Your task to perform on an android device: turn pop-ups on in chrome Image 0: 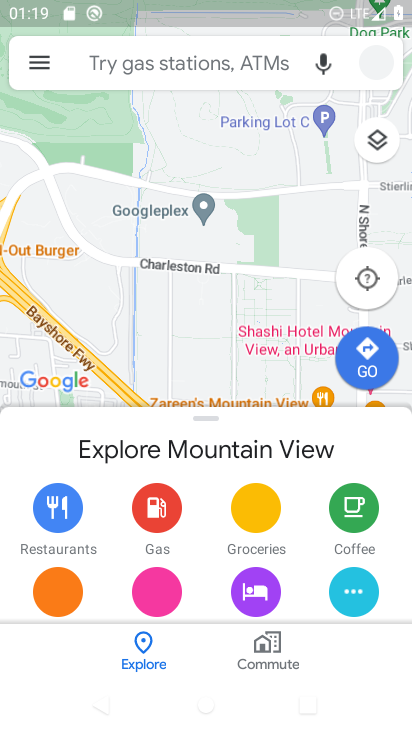
Step 0: drag from (211, 565) to (279, 123)
Your task to perform on an android device: turn pop-ups on in chrome Image 1: 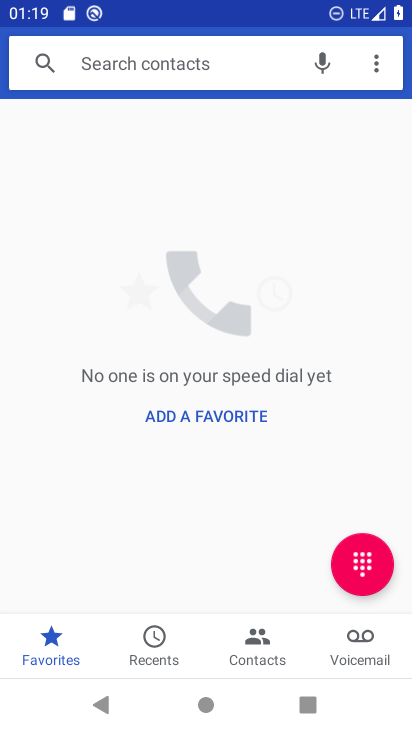
Step 1: press home button
Your task to perform on an android device: turn pop-ups on in chrome Image 2: 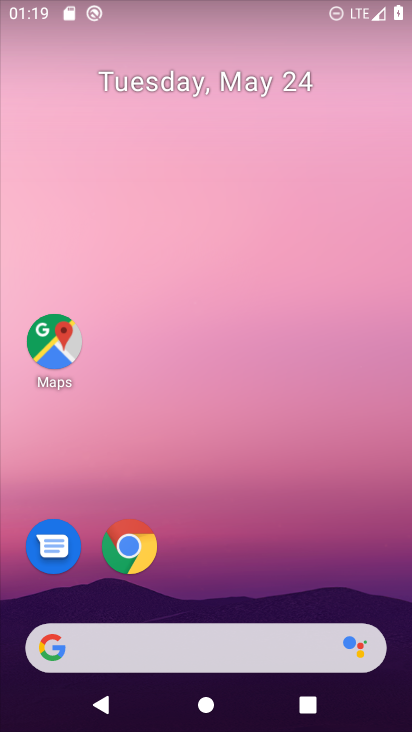
Step 2: drag from (243, 641) to (273, 85)
Your task to perform on an android device: turn pop-ups on in chrome Image 3: 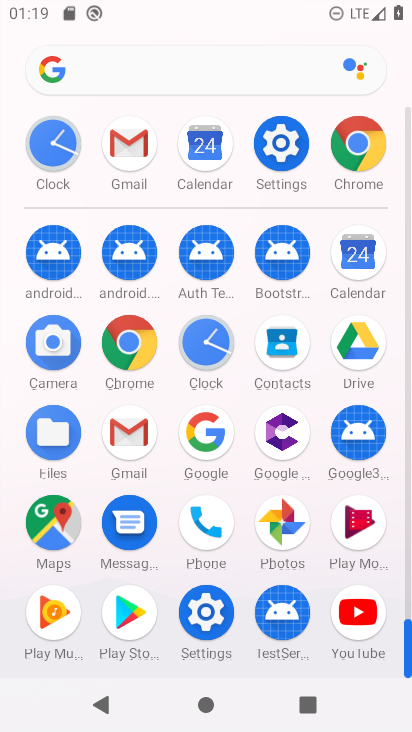
Step 3: click (121, 351)
Your task to perform on an android device: turn pop-ups on in chrome Image 4: 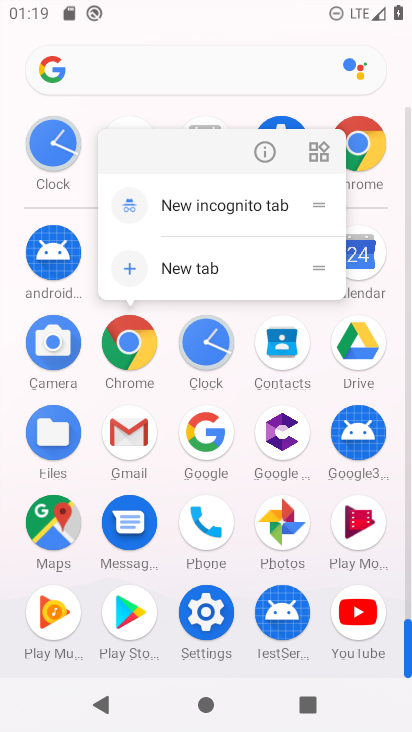
Step 4: click (114, 349)
Your task to perform on an android device: turn pop-ups on in chrome Image 5: 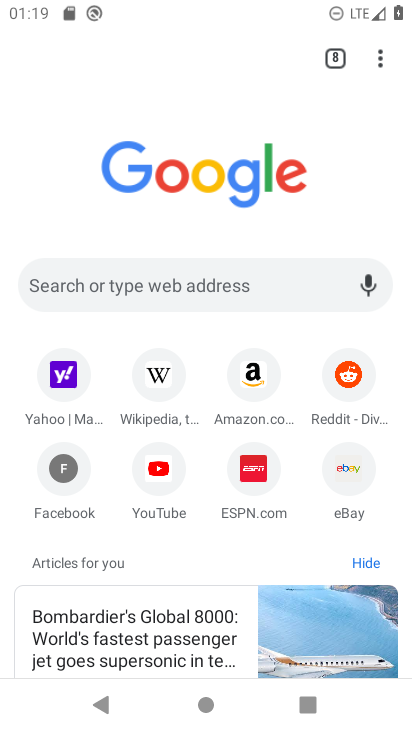
Step 5: drag from (376, 52) to (161, 510)
Your task to perform on an android device: turn pop-ups on in chrome Image 6: 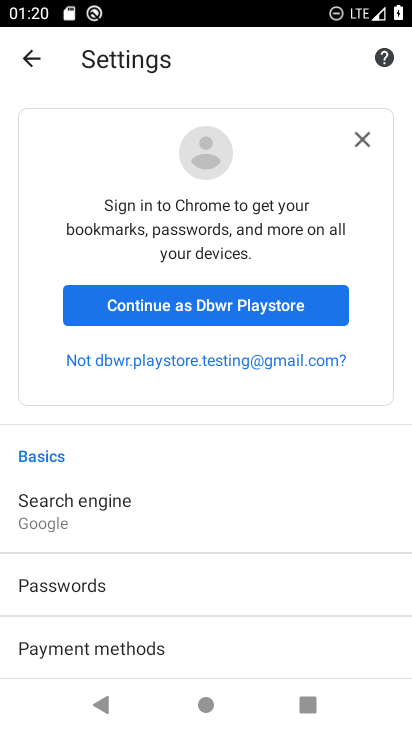
Step 6: drag from (215, 635) to (236, 75)
Your task to perform on an android device: turn pop-ups on in chrome Image 7: 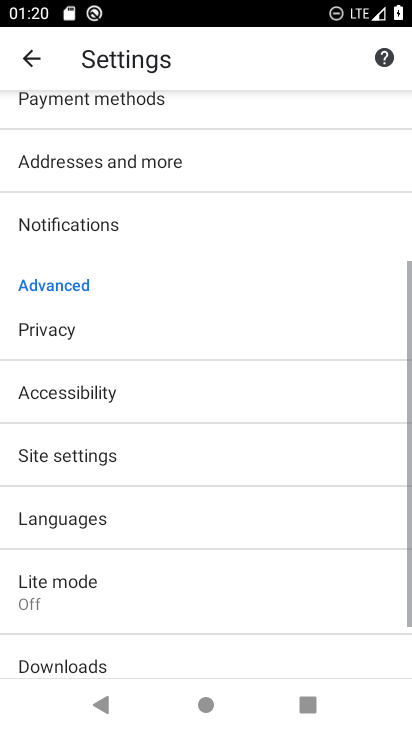
Step 7: click (92, 470)
Your task to perform on an android device: turn pop-ups on in chrome Image 8: 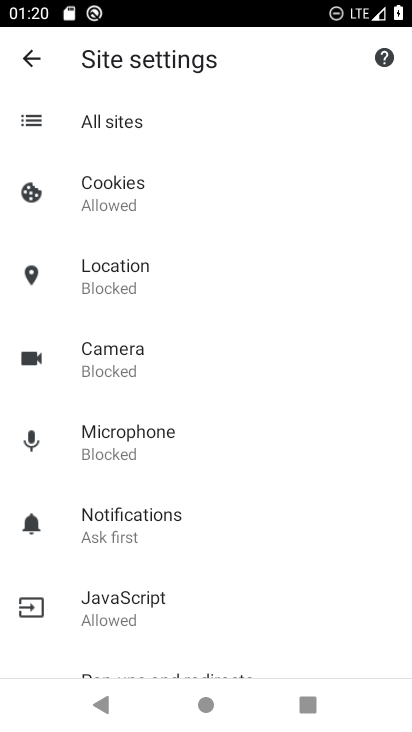
Step 8: drag from (203, 650) to (242, 278)
Your task to perform on an android device: turn pop-ups on in chrome Image 9: 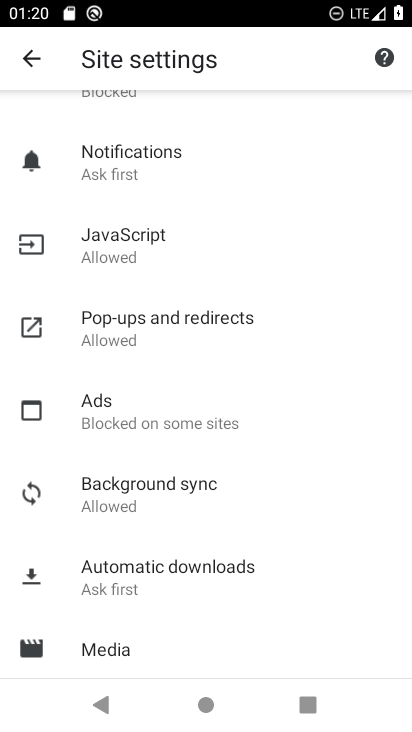
Step 9: click (193, 337)
Your task to perform on an android device: turn pop-ups on in chrome Image 10: 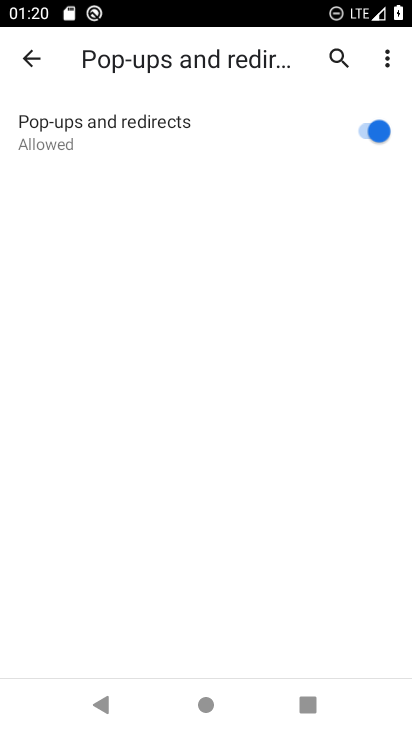
Step 10: task complete